Your task to perform on an android device: Go to eBay Image 0: 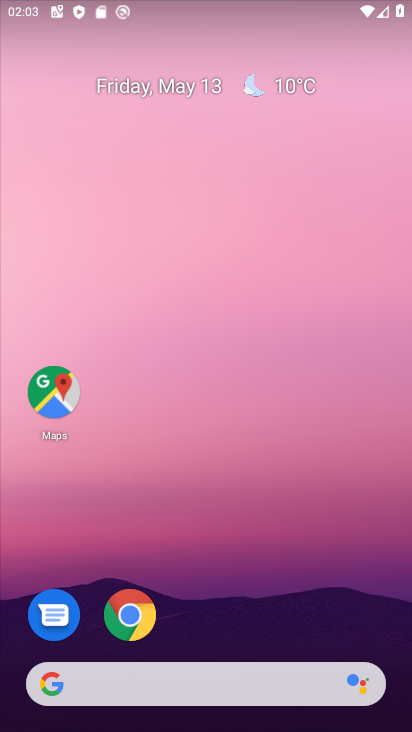
Step 0: click (134, 615)
Your task to perform on an android device: Go to eBay Image 1: 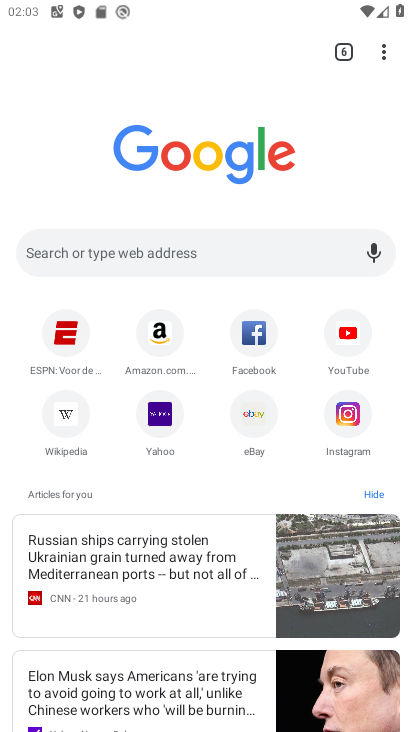
Step 1: click (254, 418)
Your task to perform on an android device: Go to eBay Image 2: 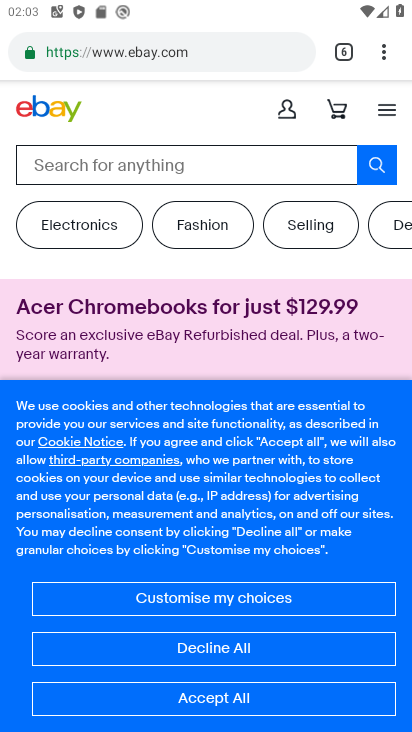
Step 2: click (207, 704)
Your task to perform on an android device: Go to eBay Image 3: 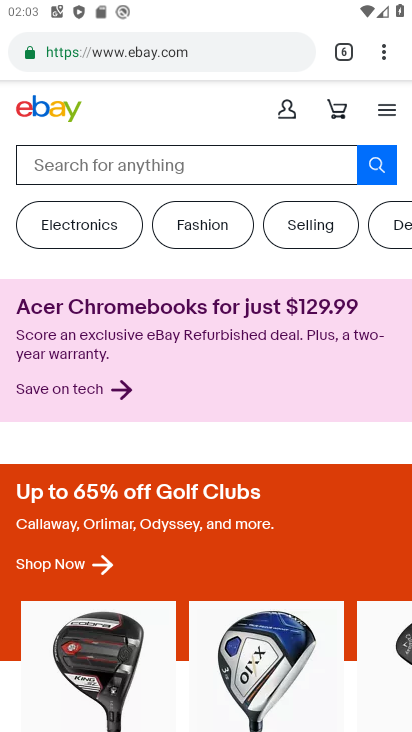
Step 3: task complete